Your task to perform on an android device: see sites visited before in the chrome app Image 0: 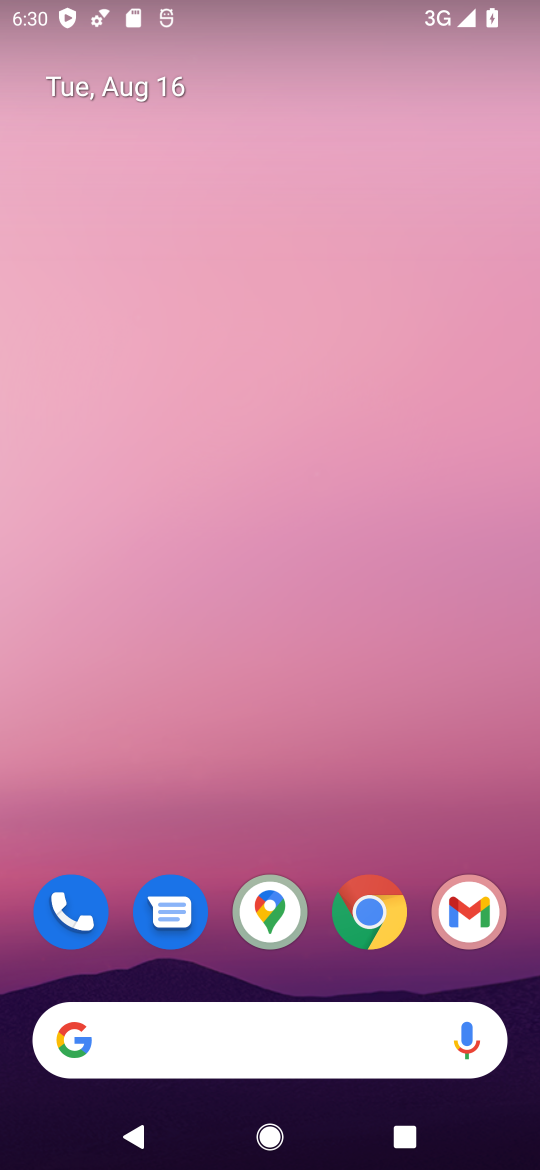
Step 0: click (376, 911)
Your task to perform on an android device: see sites visited before in the chrome app Image 1: 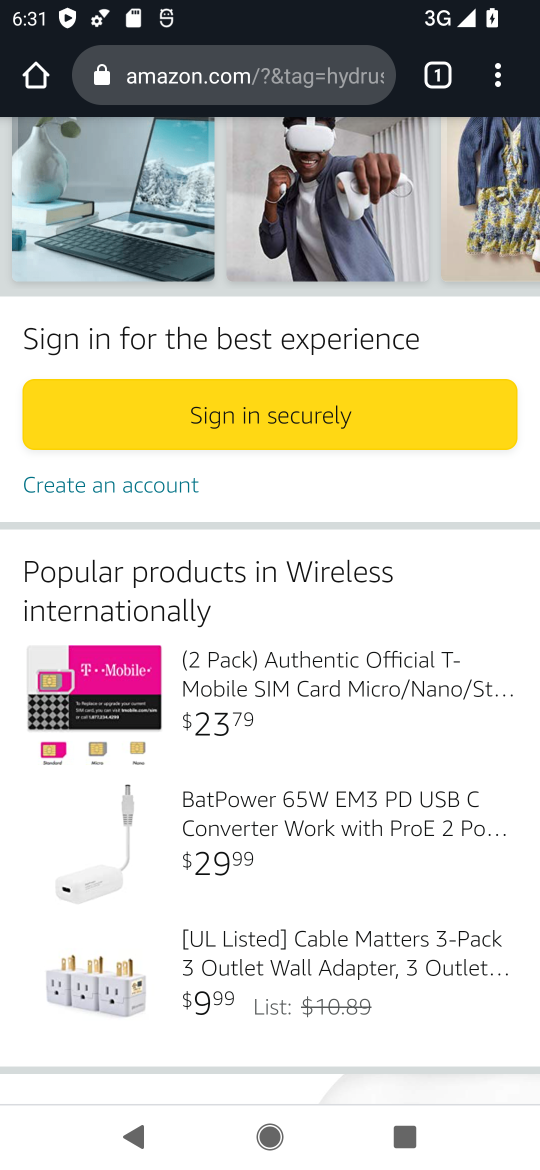
Step 1: click (489, 92)
Your task to perform on an android device: see sites visited before in the chrome app Image 2: 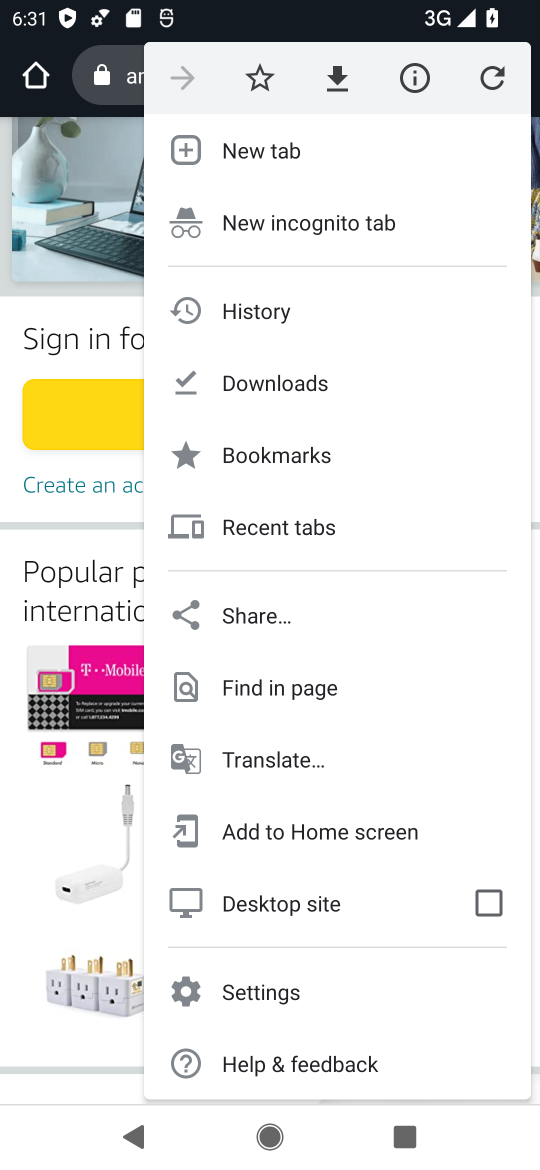
Step 2: click (247, 295)
Your task to perform on an android device: see sites visited before in the chrome app Image 3: 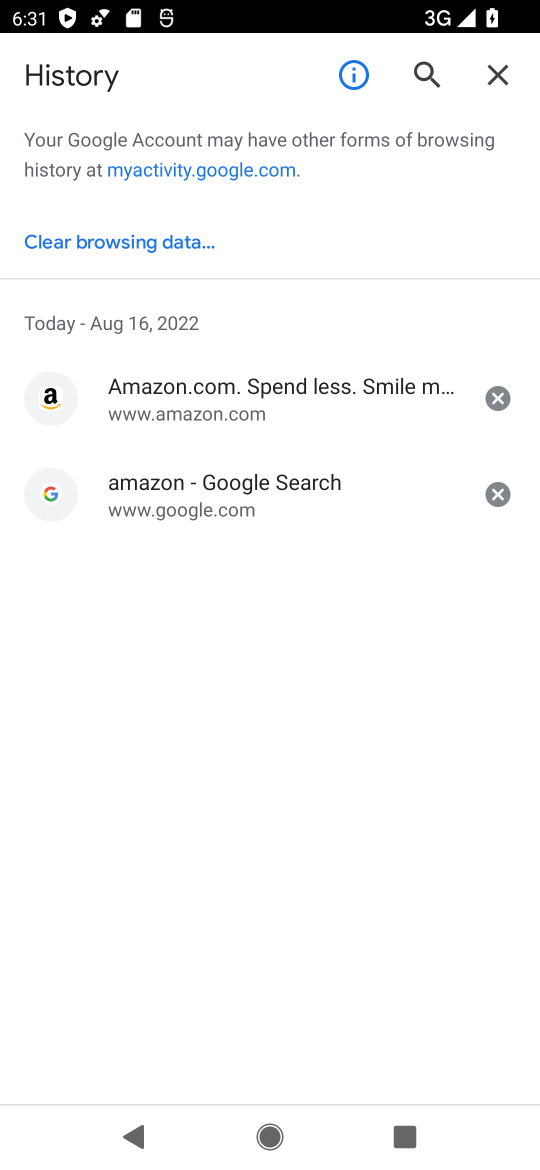
Step 3: task complete